Your task to perform on an android device: Open Wikipedia Image 0: 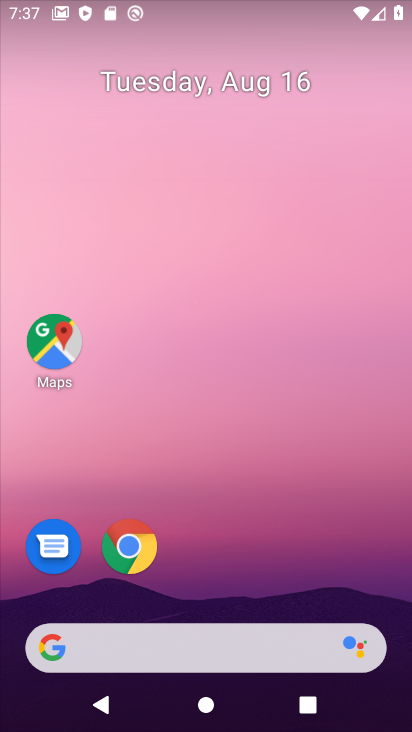
Step 0: click (134, 545)
Your task to perform on an android device: Open Wikipedia Image 1: 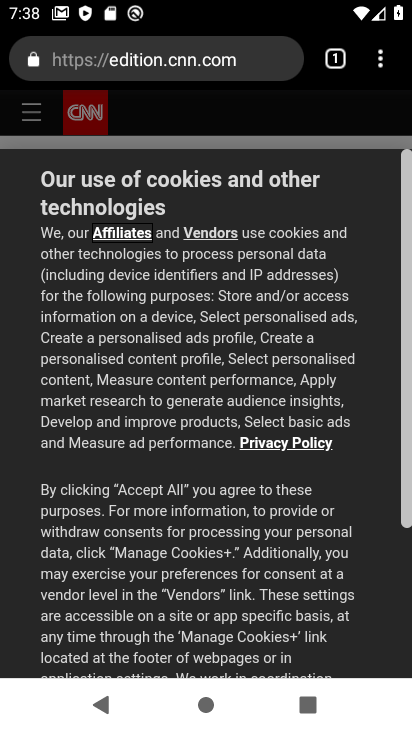
Step 1: press back button
Your task to perform on an android device: Open Wikipedia Image 2: 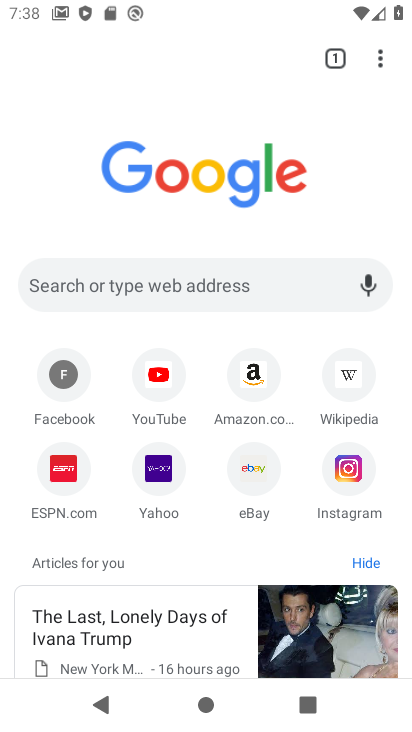
Step 2: click (349, 372)
Your task to perform on an android device: Open Wikipedia Image 3: 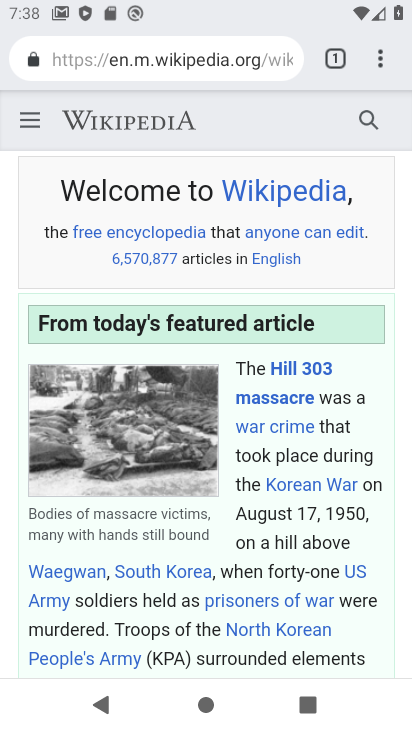
Step 3: task complete